Your task to perform on an android device: change the clock display to analog Image 0: 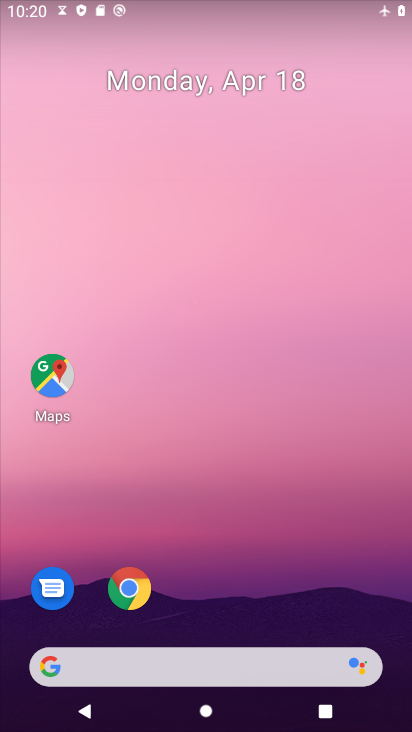
Step 0: drag from (317, 437) to (216, 11)
Your task to perform on an android device: change the clock display to analog Image 1: 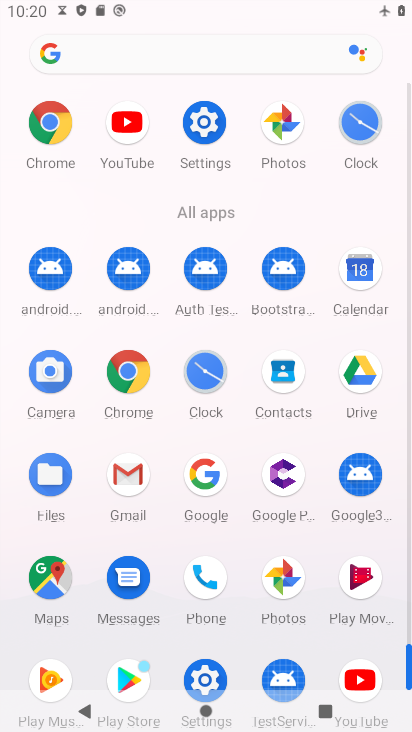
Step 1: click (197, 370)
Your task to perform on an android device: change the clock display to analog Image 2: 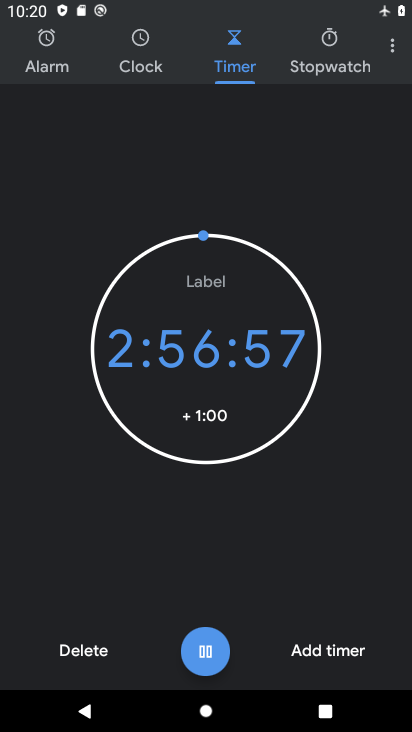
Step 2: click (389, 47)
Your task to perform on an android device: change the clock display to analog Image 3: 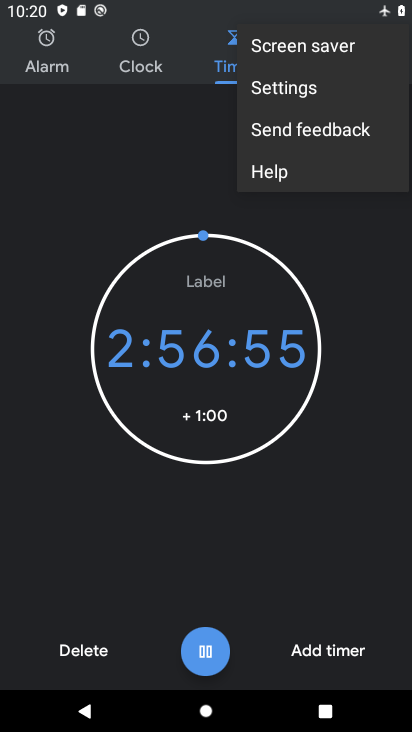
Step 3: click (310, 86)
Your task to perform on an android device: change the clock display to analog Image 4: 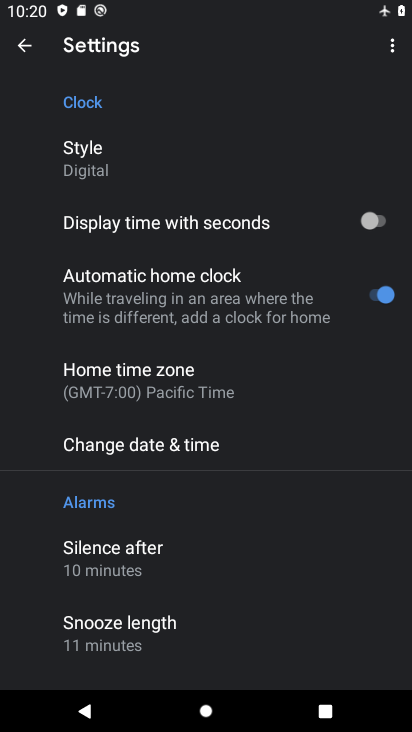
Step 4: click (127, 166)
Your task to perform on an android device: change the clock display to analog Image 5: 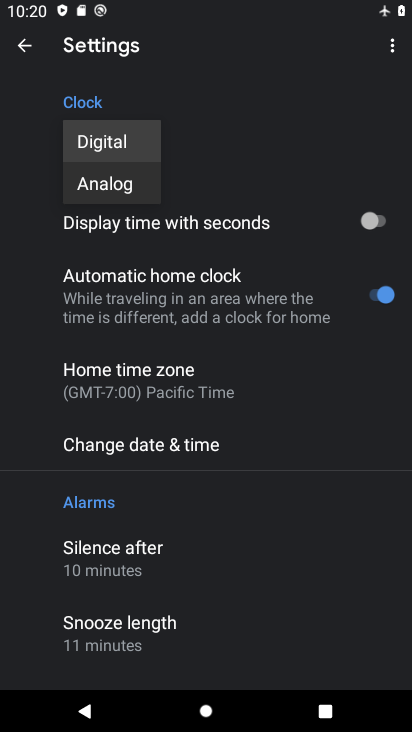
Step 5: click (134, 188)
Your task to perform on an android device: change the clock display to analog Image 6: 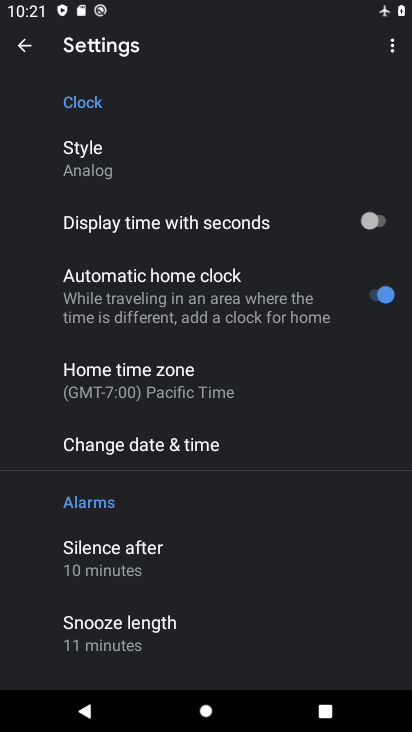
Step 6: task complete